Your task to perform on an android device: toggle notifications settings in the gmail app Image 0: 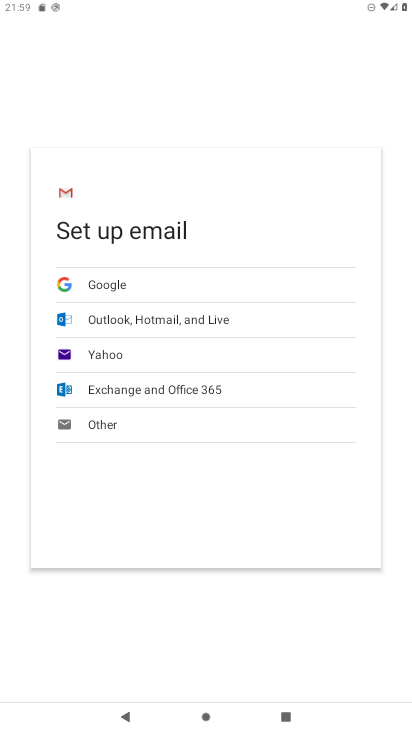
Step 0: press home button
Your task to perform on an android device: toggle notifications settings in the gmail app Image 1: 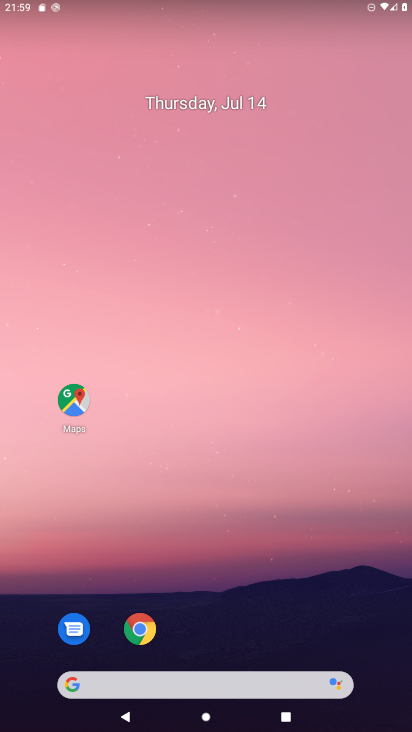
Step 1: drag from (254, 634) to (254, 105)
Your task to perform on an android device: toggle notifications settings in the gmail app Image 2: 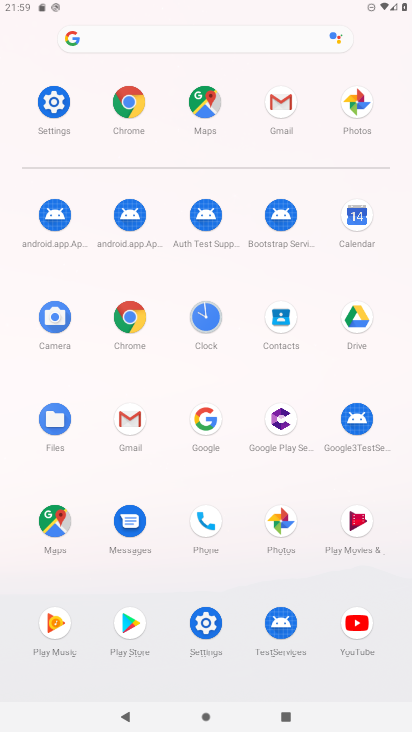
Step 2: click (288, 100)
Your task to perform on an android device: toggle notifications settings in the gmail app Image 3: 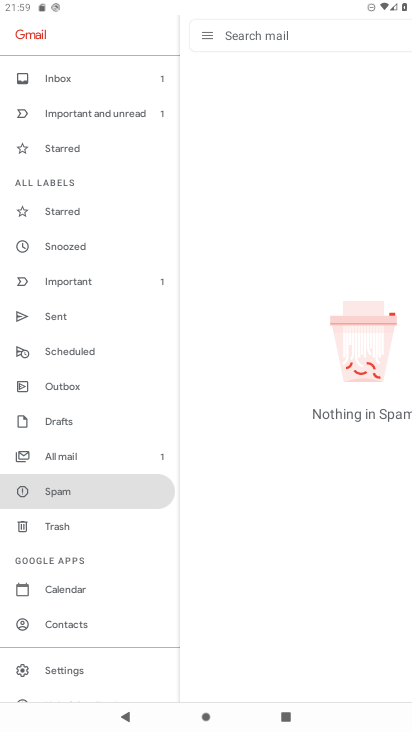
Step 3: click (56, 666)
Your task to perform on an android device: toggle notifications settings in the gmail app Image 4: 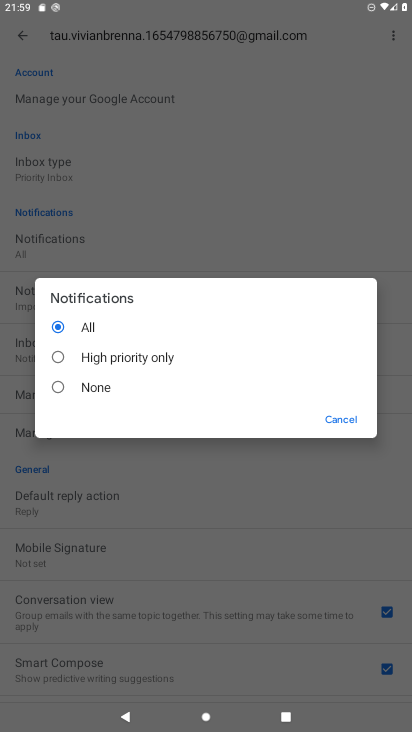
Step 4: click (86, 382)
Your task to perform on an android device: toggle notifications settings in the gmail app Image 5: 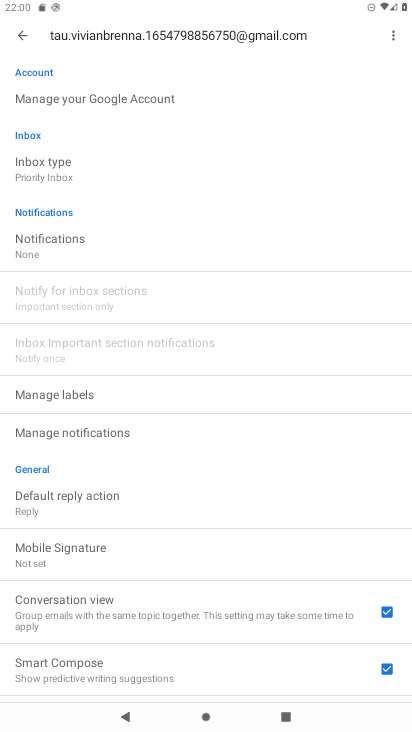
Step 5: task complete